Your task to perform on an android device: find photos in the google photos app Image 0: 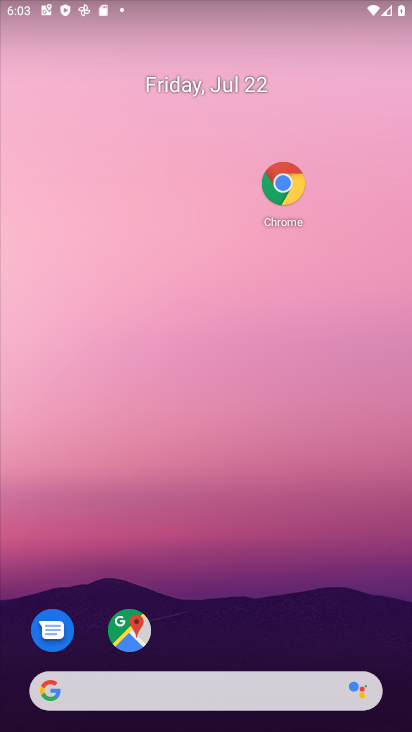
Step 0: drag from (188, 596) to (222, 95)
Your task to perform on an android device: find photos in the google photos app Image 1: 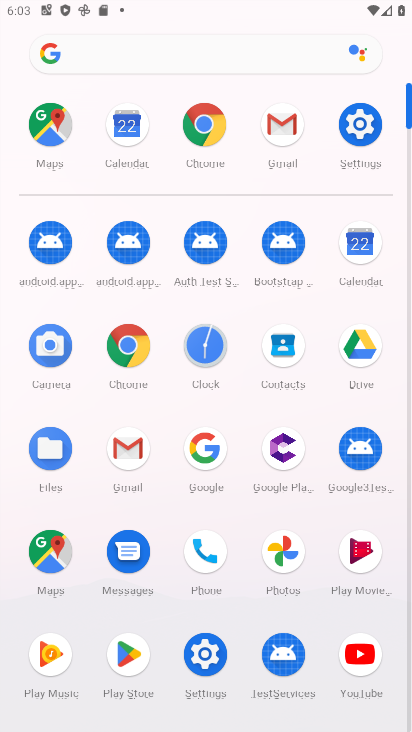
Step 1: click (279, 551)
Your task to perform on an android device: find photos in the google photos app Image 2: 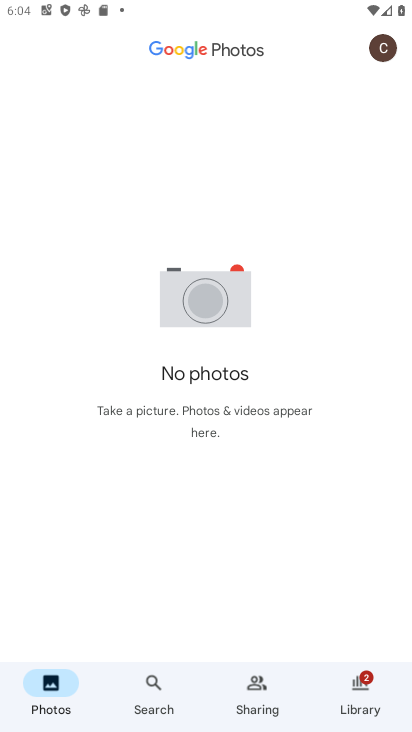
Step 2: task complete